Your task to perform on an android device: What is the recent news? Image 0: 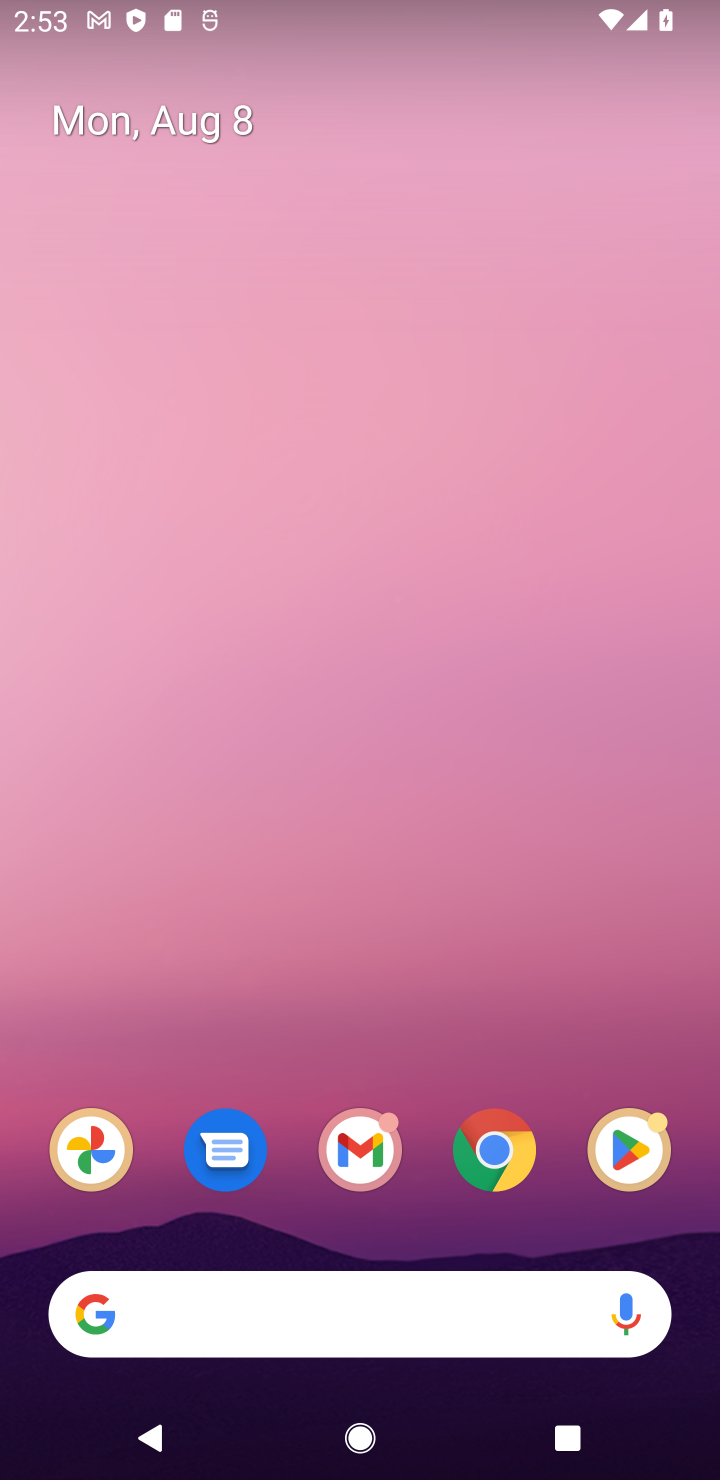
Step 0: click (315, 1337)
Your task to perform on an android device: What is the recent news? Image 1: 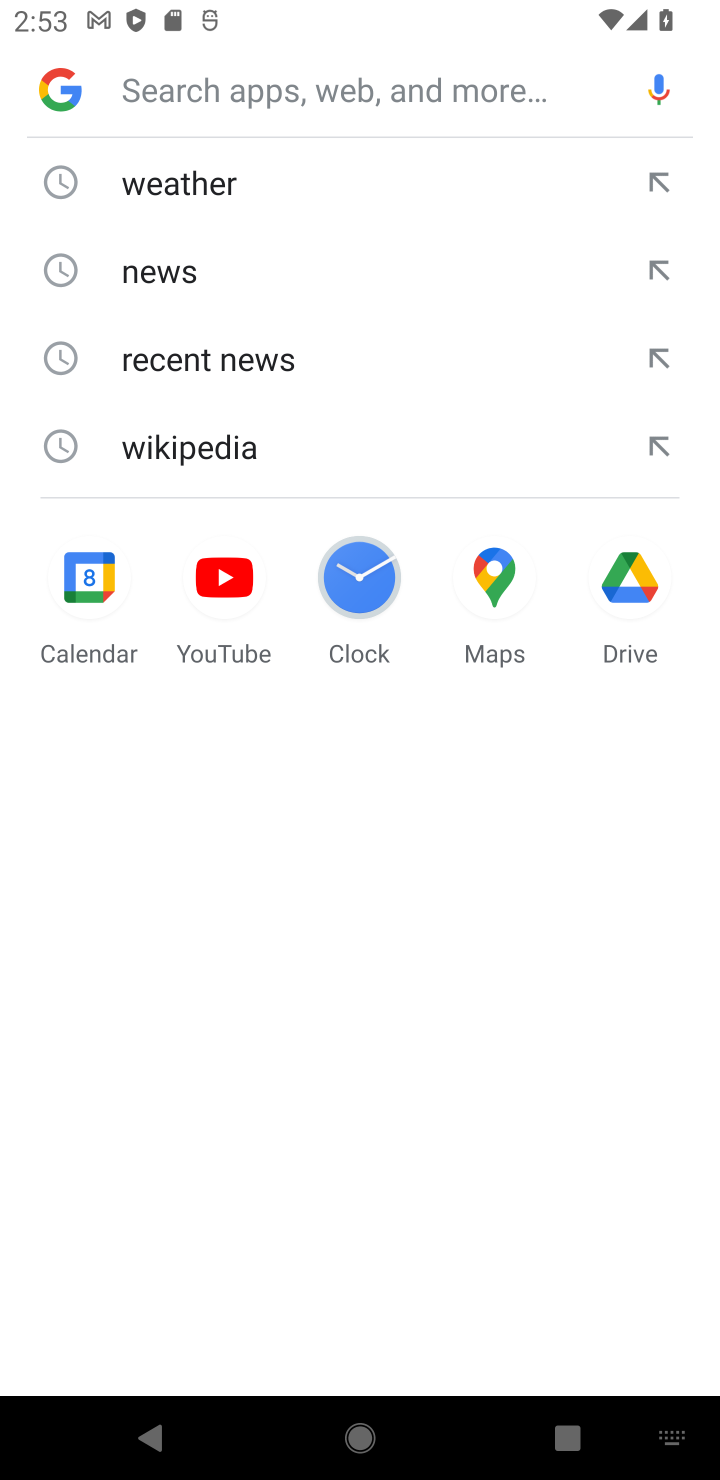
Step 1: click (218, 212)
Your task to perform on an android device: What is the recent news? Image 2: 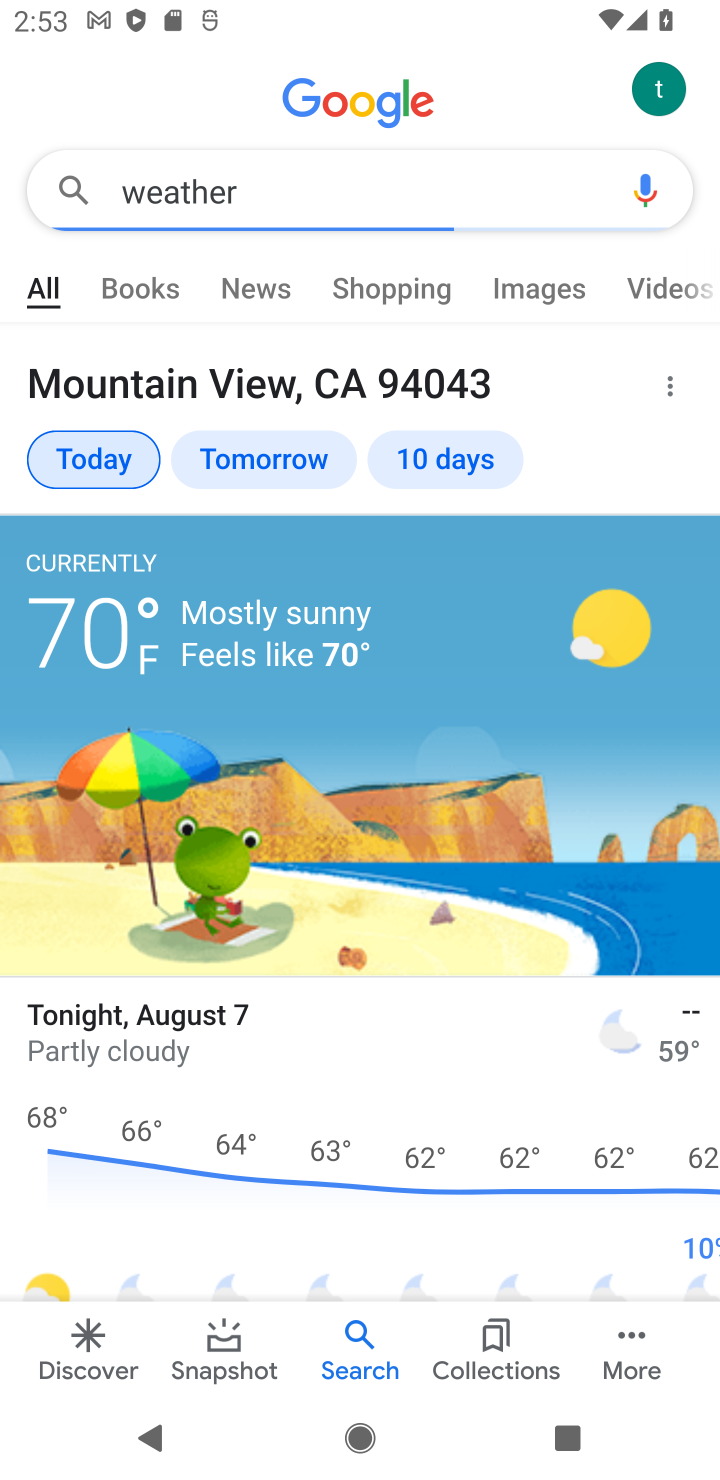
Step 2: task complete